Your task to perform on an android device: change the clock display to show seconds Image 0: 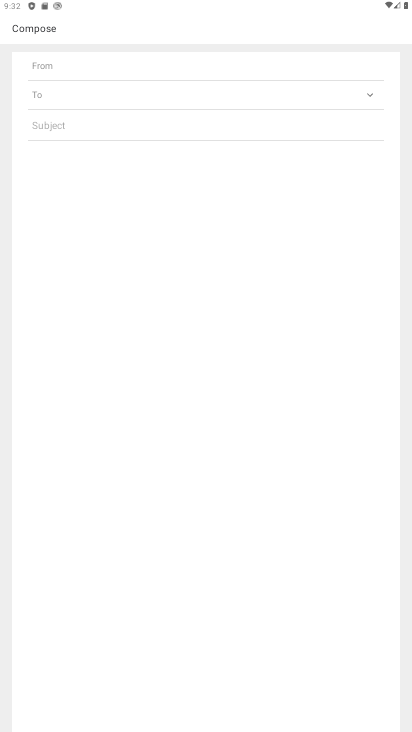
Step 0: drag from (346, 648) to (398, 491)
Your task to perform on an android device: change the clock display to show seconds Image 1: 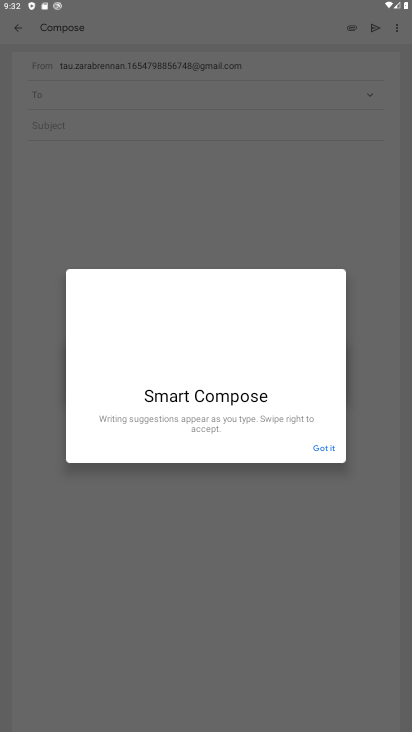
Step 1: press home button
Your task to perform on an android device: change the clock display to show seconds Image 2: 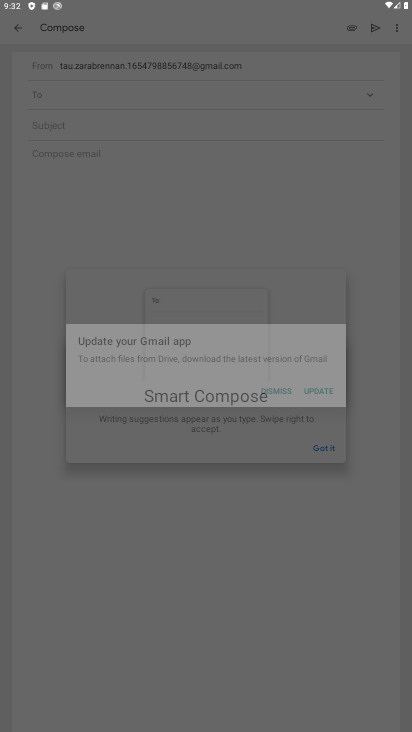
Step 2: drag from (398, 491) to (409, 611)
Your task to perform on an android device: change the clock display to show seconds Image 3: 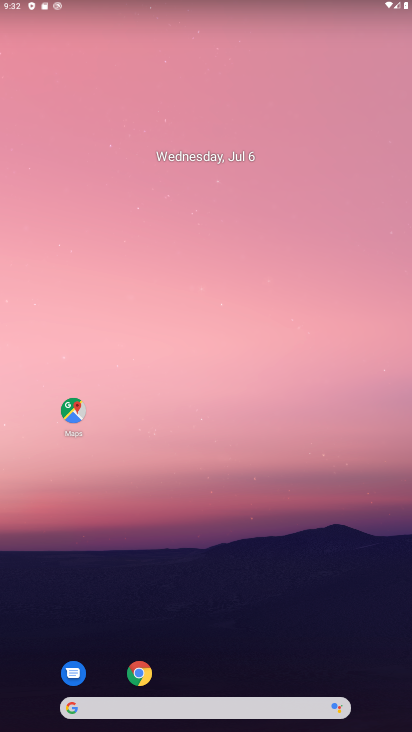
Step 3: drag from (361, 642) to (363, 110)
Your task to perform on an android device: change the clock display to show seconds Image 4: 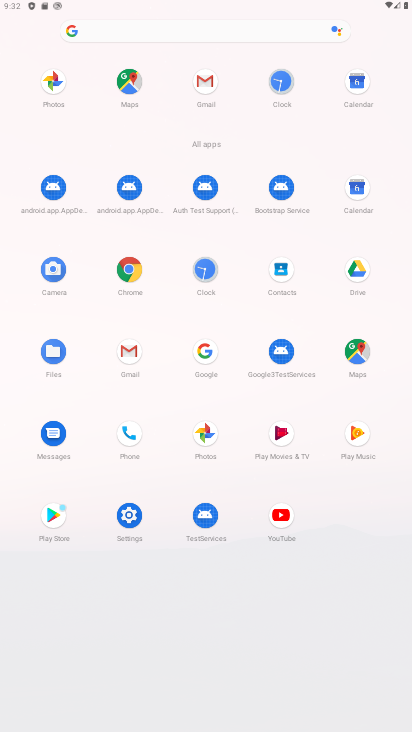
Step 4: click (207, 276)
Your task to perform on an android device: change the clock display to show seconds Image 5: 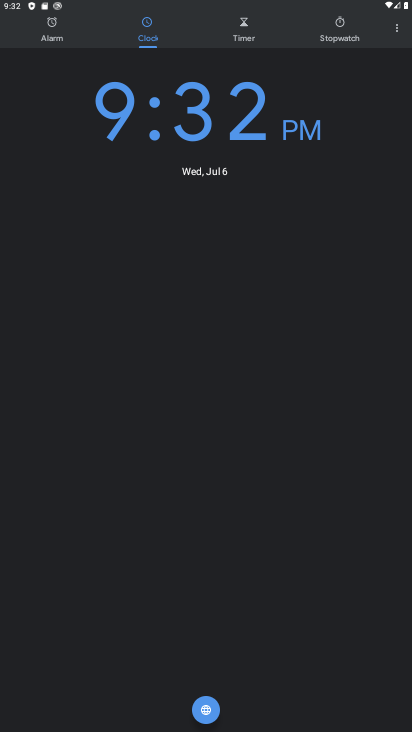
Step 5: click (398, 32)
Your task to perform on an android device: change the clock display to show seconds Image 6: 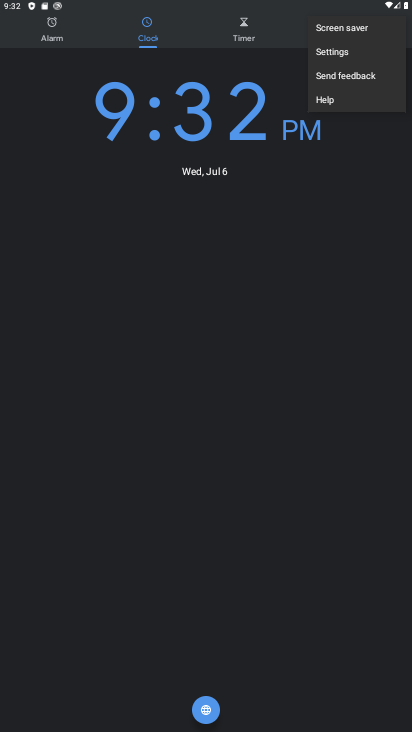
Step 6: click (337, 50)
Your task to perform on an android device: change the clock display to show seconds Image 7: 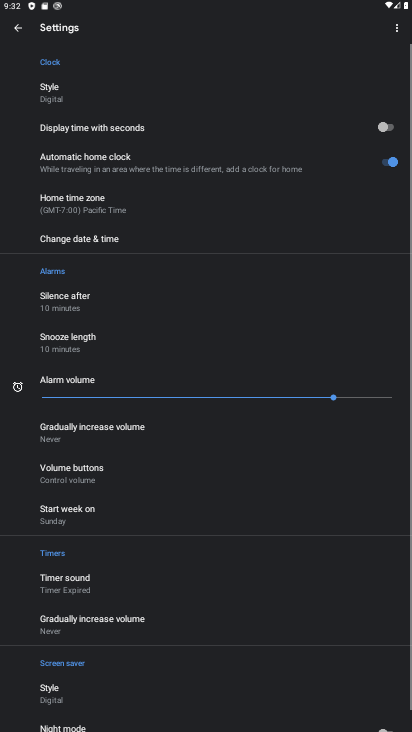
Step 7: drag from (296, 530) to (297, 254)
Your task to perform on an android device: change the clock display to show seconds Image 8: 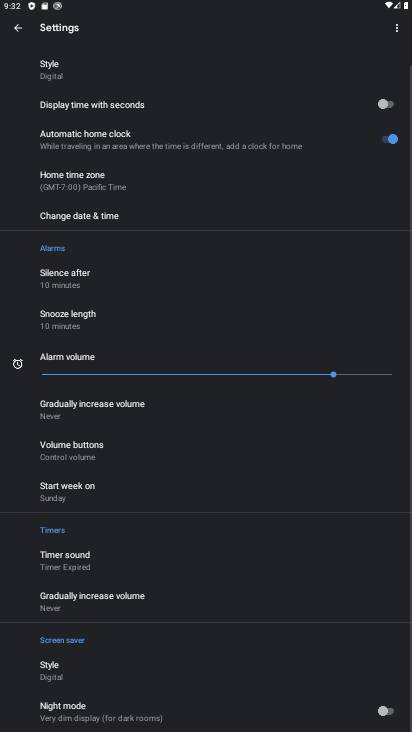
Step 8: drag from (301, 202) to (282, 382)
Your task to perform on an android device: change the clock display to show seconds Image 9: 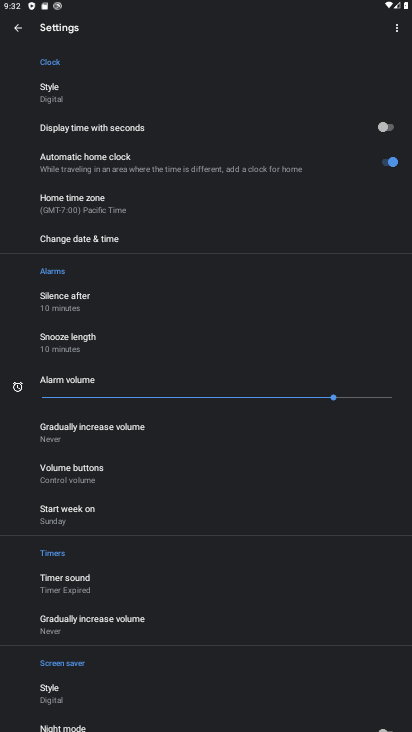
Step 9: click (378, 124)
Your task to perform on an android device: change the clock display to show seconds Image 10: 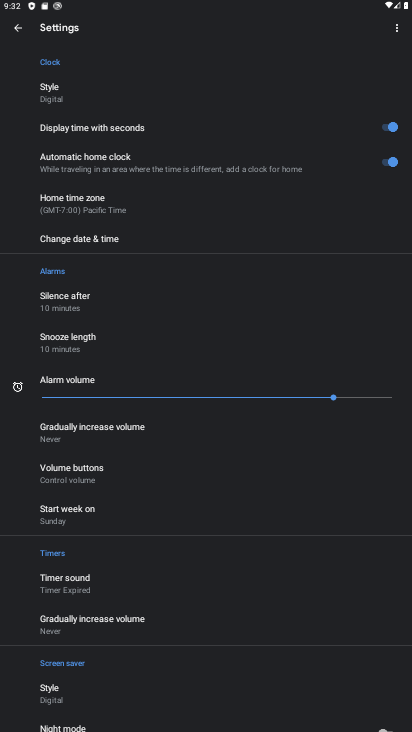
Step 10: task complete